Your task to perform on an android device: toggle improve location accuracy Image 0: 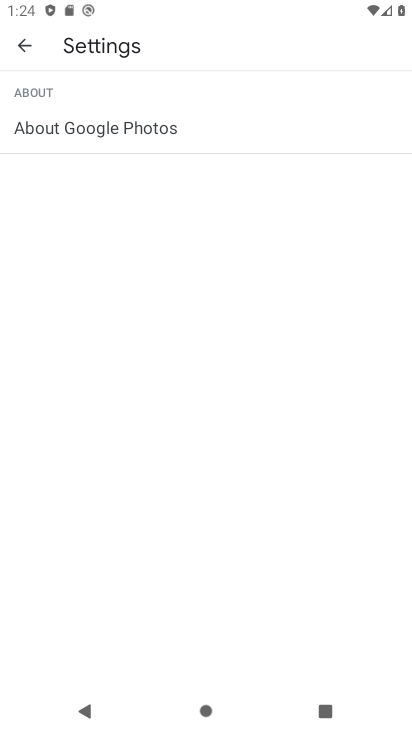
Step 0: press home button
Your task to perform on an android device: toggle improve location accuracy Image 1: 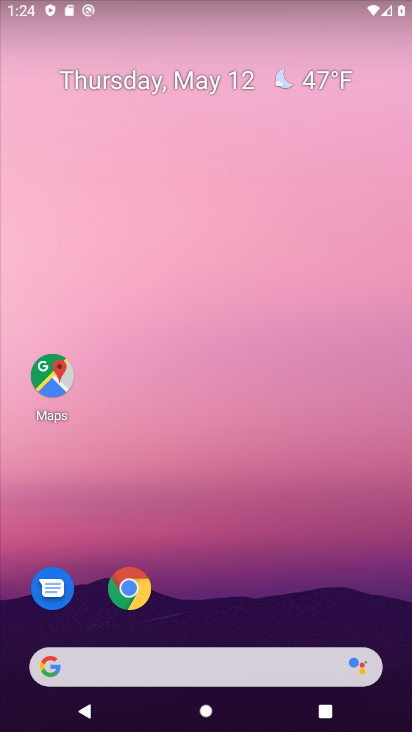
Step 1: drag from (386, 615) to (217, 83)
Your task to perform on an android device: toggle improve location accuracy Image 2: 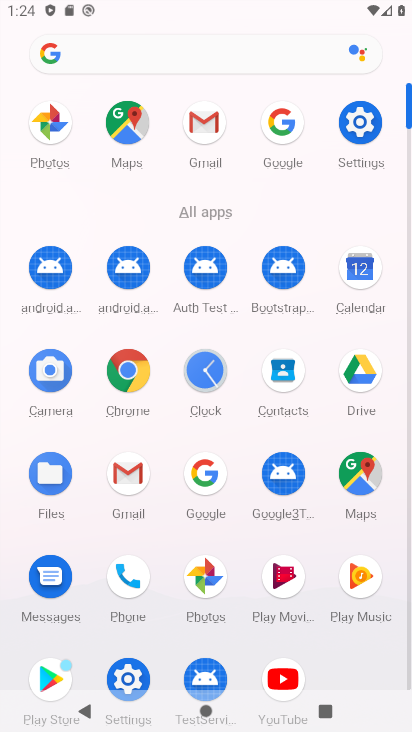
Step 2: click (133, 680)
Your task to perform on an android device: toggle improve location accuracy Image 3: 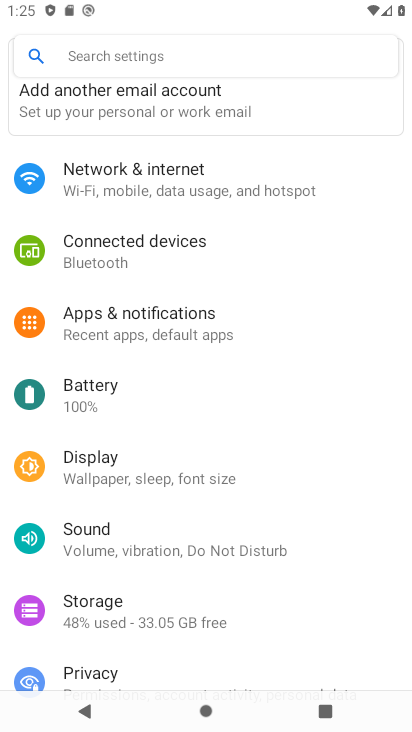
Step 3: drag from (145, 644) to (131, 339)
Your task to perform on an android device: toggle improve location accuracy Image 4: 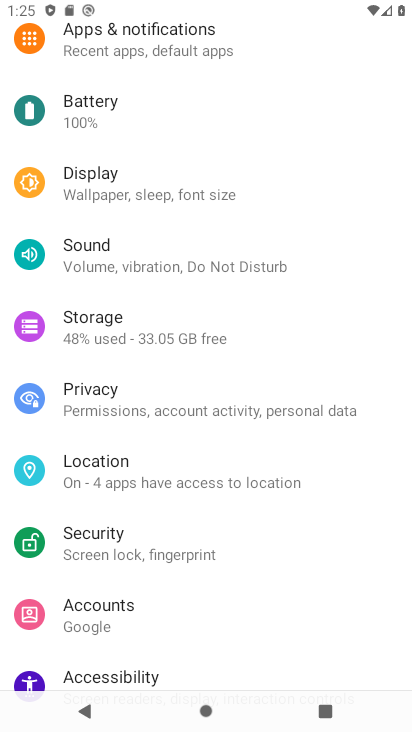
Step 4: click (141, 478)
Your task to perform on an android device: toggle improve location accuracy Image 5: 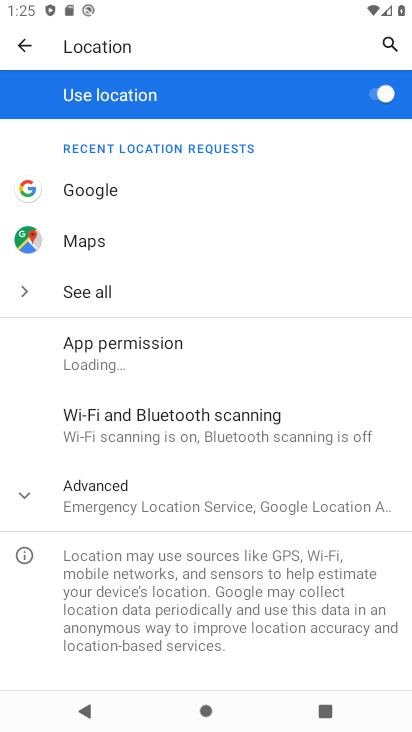
Step 5: click (133, 515)
Your task to perform on an android device: toggle improve location accuracy Image 6: 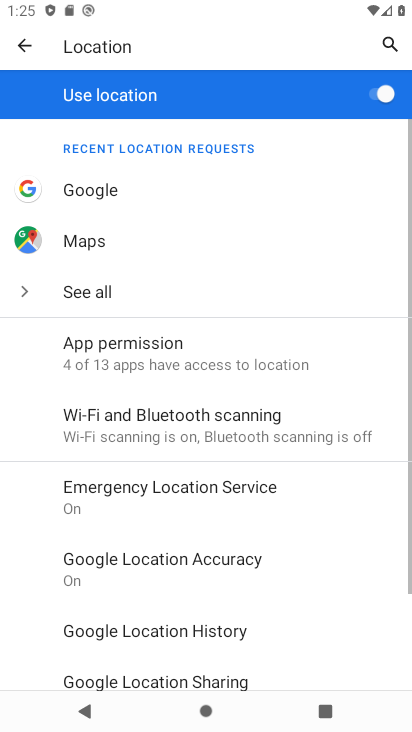
Step 6: click (182, 562)
Your task to perform on an android device: toggle improve location accuracy Image 7: 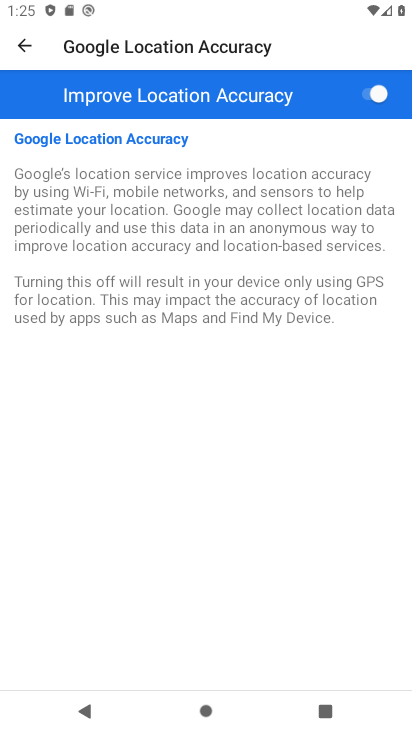
Step 7: click (372, 114)
Your task to perform on an android device: toggle improve location accuracy Image 8: 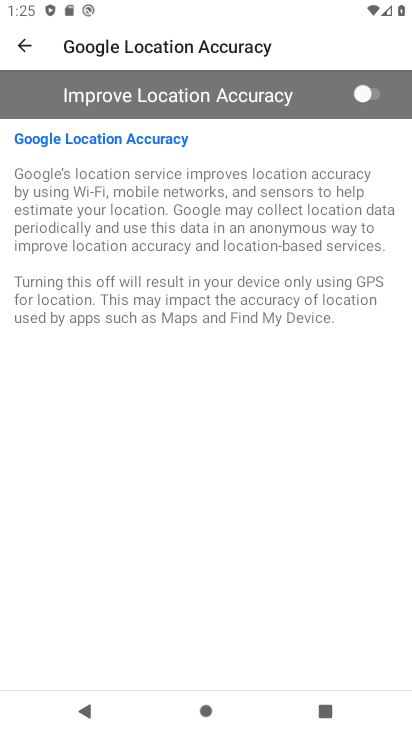
Step 8: task complete